Your task to perform on an android device: Show the shopping cart on amazon. Image 0: 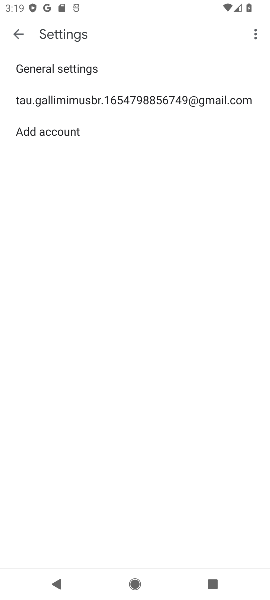
Step 0: press home button
Your task to perform on an android device: Show the shopping cart on amazon. Image 1: 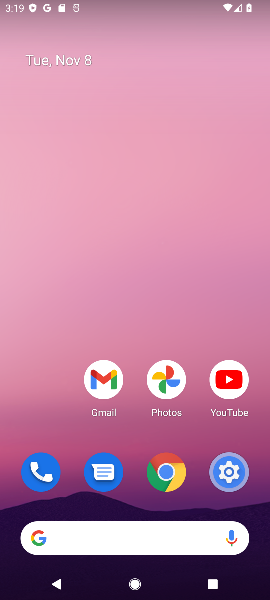
Step 1: click (139, 543)
Your task to perform on an android device: Show the shopping cart on amazon. Image 2: 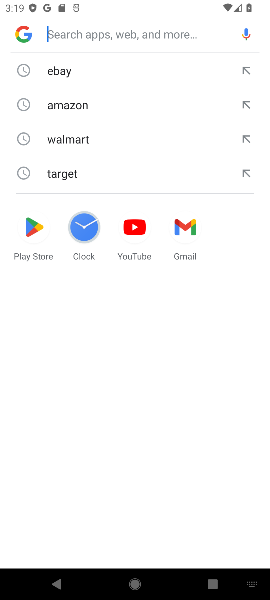
Step 2: click (131, 100)
Your task to perform on an android device: Show the shopping cart on amazon. Image 3: 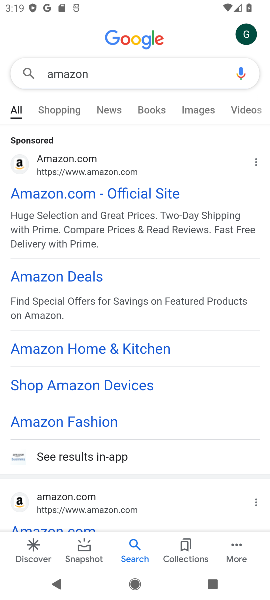
Step 3: click (70, 203)
Your task to perform on an android device: Show the shopping cart on amazon. Image 4: 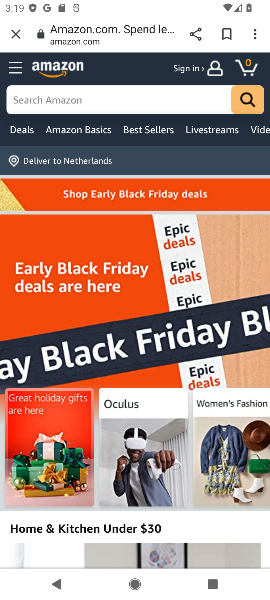
Step 4: click (105, 104)
Your task to perform on an android device: Show the shopping cart on amazon. Image 5: 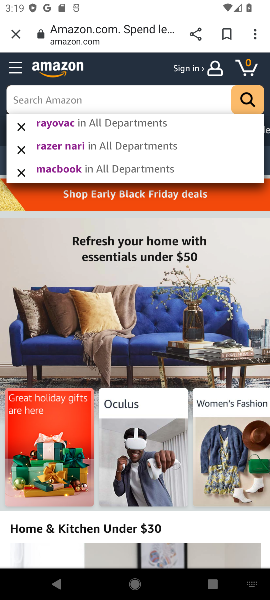
Step 5: click (1, 171)
Your task to perform on an android device: Show the shopping cart on amazon. Image 6: 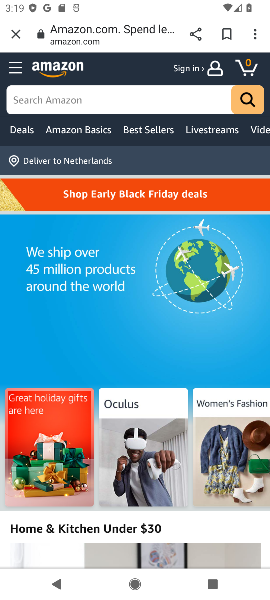
Step 6: task complete